Your task to perform on an android device: Open Google Chrome and open the bookmarks view Image 0: 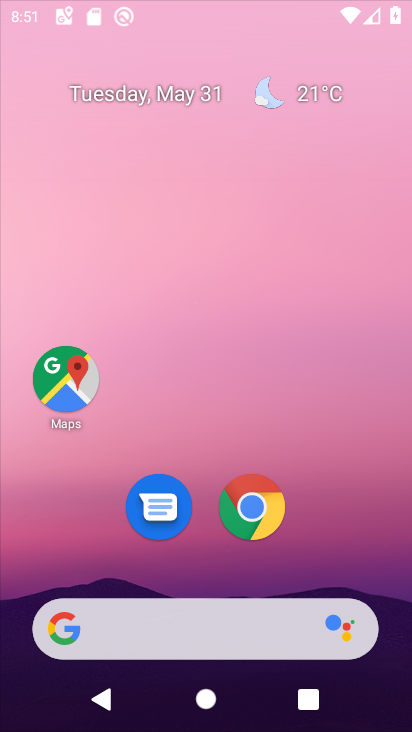
Step 0: press back button
Your task to perform on an android device: Open Google Chrome and open the bookmarks view Image 1: 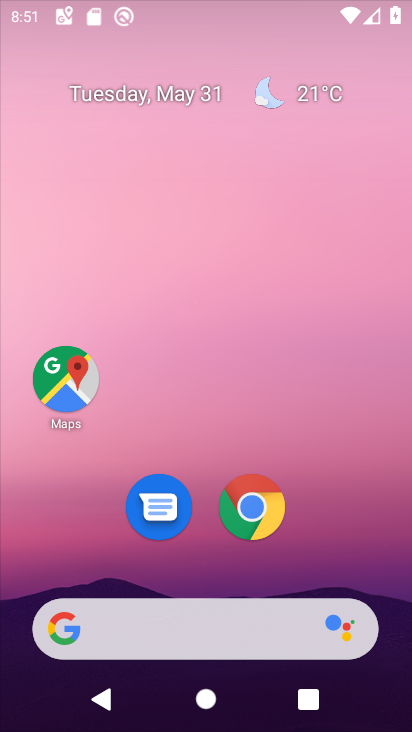
Step 1: drag from (252, 668) to (409, 66)
Your task to perform on an android device: Open Google Chrome and open the bookmarks view Image 2: 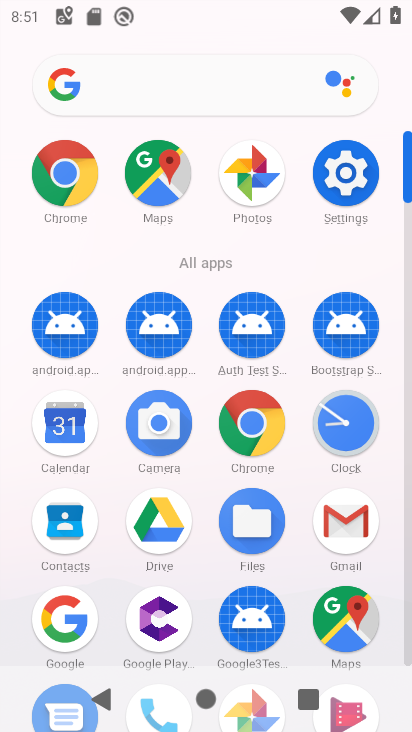
Step 2: click (251, 425)
Your task to perform on an android device: Open Google Chrome and open the bookmarks view Image 3: 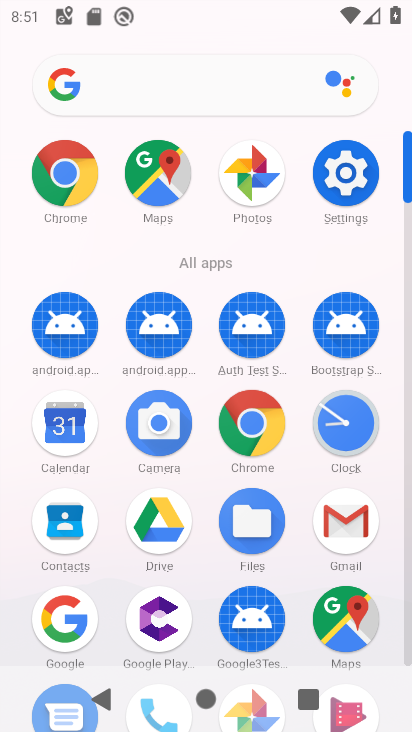
Step 3: click (252, 424)
Your task to perform on an android device: Open Google Chrome and open the bookmarks view Image 4: 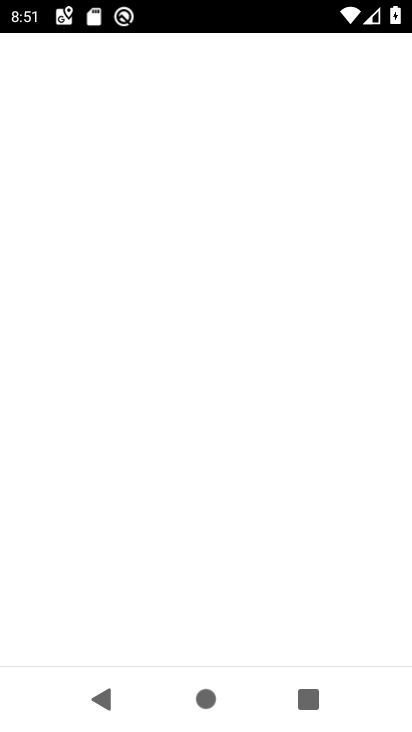
Step 4: click (252, 424)
Your task to perform on an android device: Open Google Chrome and open the bookmarks view Image 5: 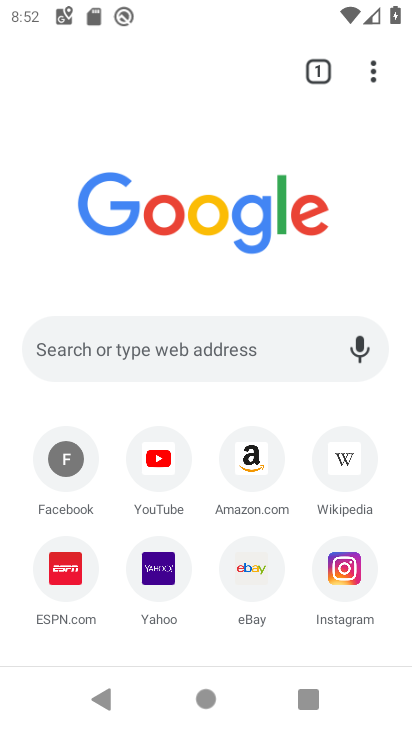
Step 5: drag from (372, 70) to (107, 267)
Your task to perform on an android device: Open Google Chrome and open the bookmarks view Image 6: 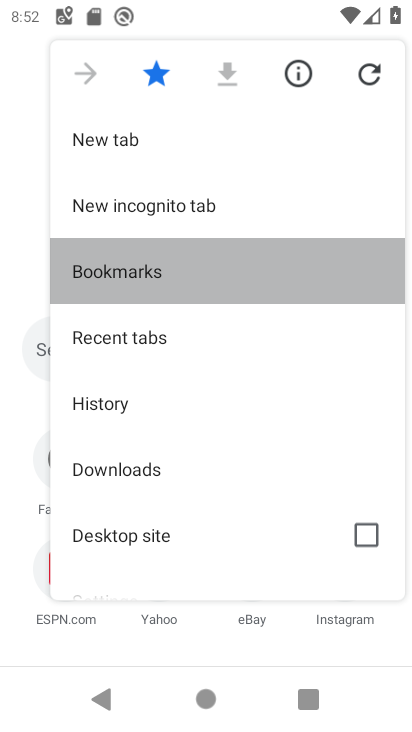
Step 6: click (110, 269)
Your task to perform on an android device: Open Google Chrome and open the bookmarks view Image 7: 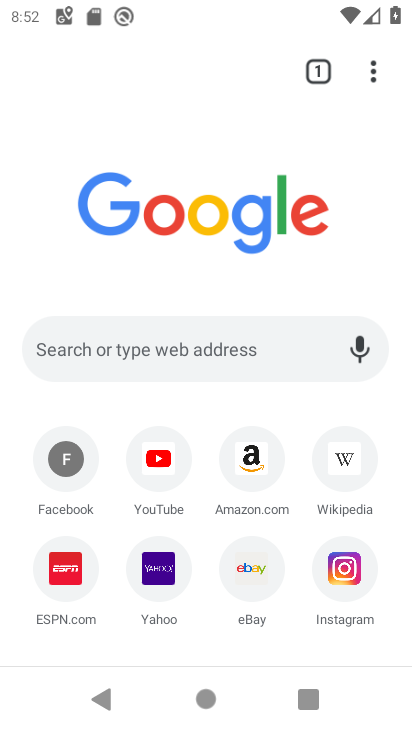
Step 7: click (110, 269)
Your task to perform on an android device: Open Google Chrome and open the bookmarks view Image 8: 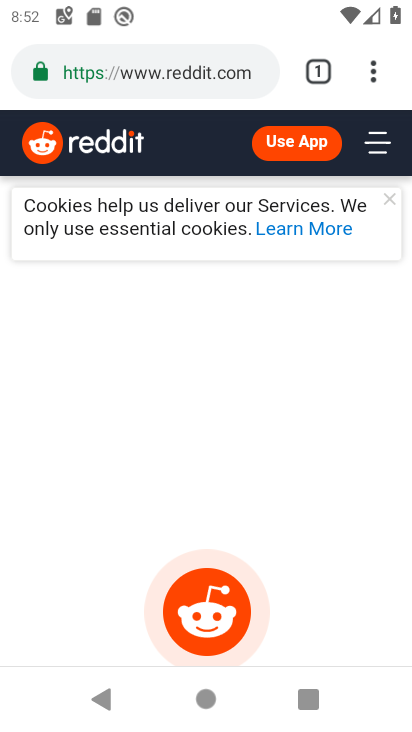
Step 8: task complete